Your task to perform on an android device: open chrome privacy settings Image 0: 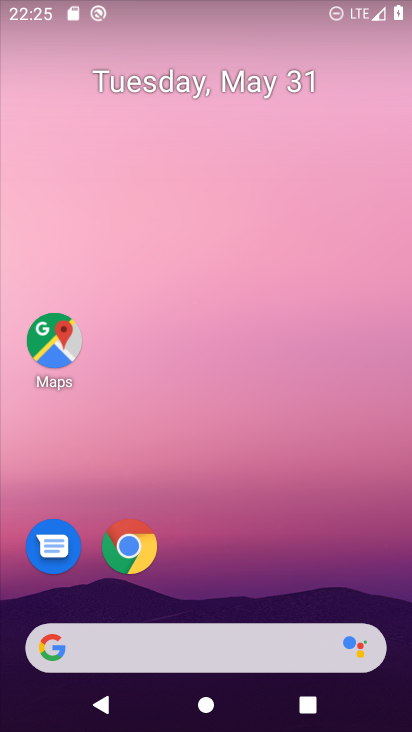
Step 0: click (117, 545)
Your task to perform on an android device: open chrome privacy settings Image 1: 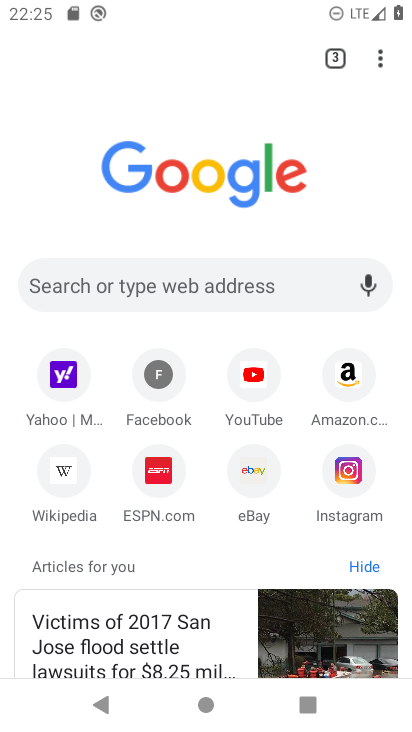
Step 1: click (379, 52)
Your task to perform on an android device: open chrome privacy settings Image 2: 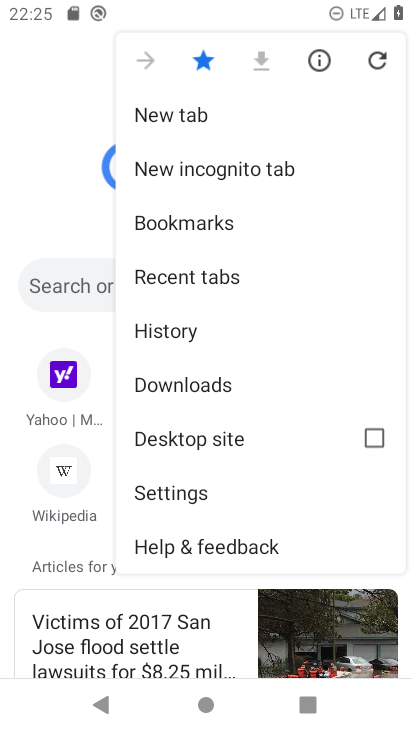
Step 2: click (188, 500)
Your task to perform on an android device: open chrome privacy settings Image 3: 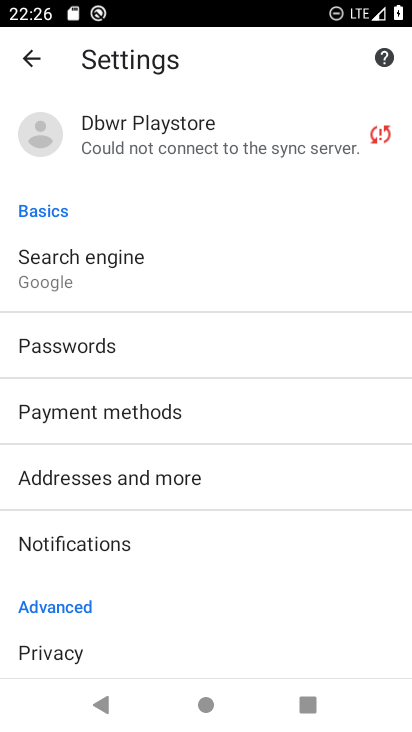
Step 3: drag from (230, 647) to (244, 399)
Your task to perform on an android device: open chrome privacy settings Image 4: 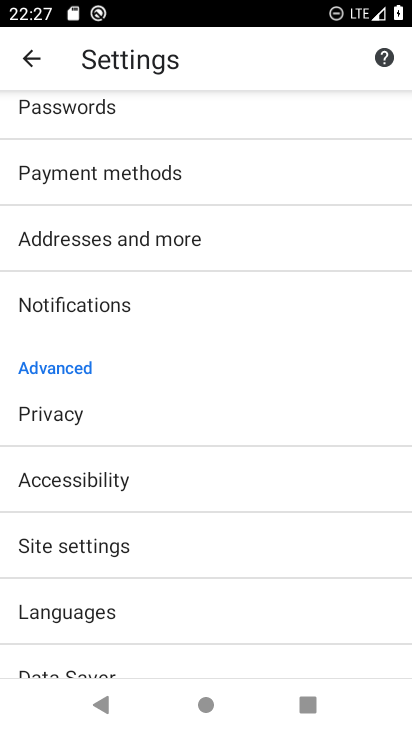
Step 4: click (48, 418)
Your task to perform on an android device: open chrome privacy settings Image 5: 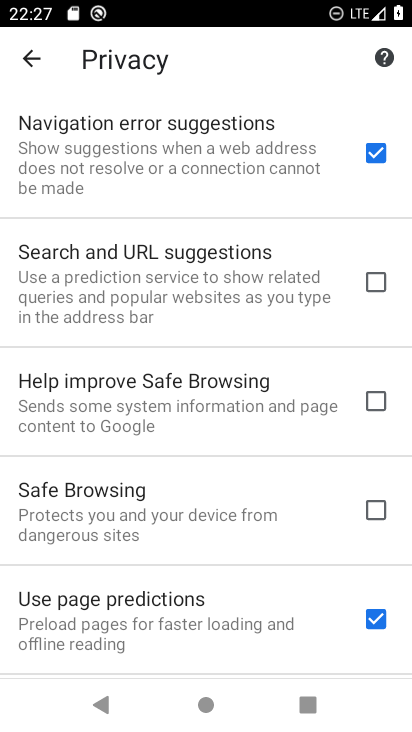
Step 5: task complete